Your task to perform on an android device: Open Chrome and go to settings Image 0: 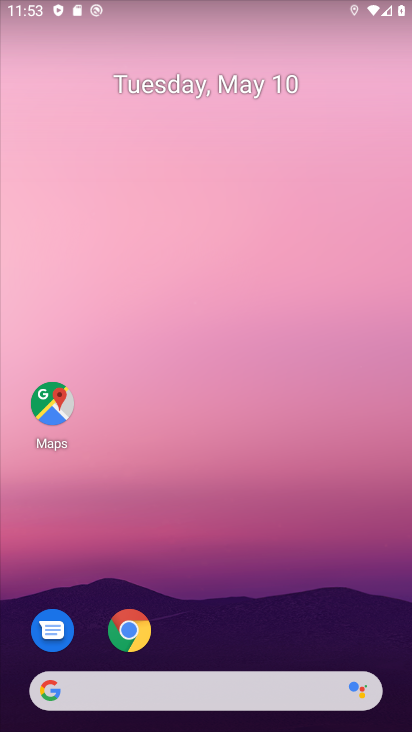
Step 0: click (124, 627)
Your task to perform on an android device: Open Chrome and go to settings Image 1: 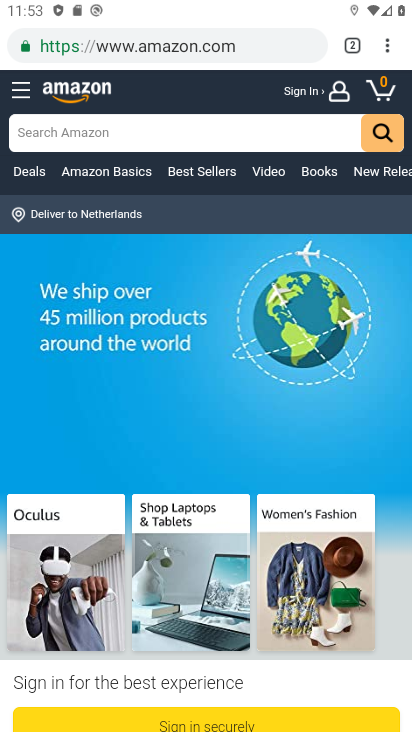
Step 1: click (387, 45)
Your task to perform on an android device: Open Chrome and go to settings Image 2: 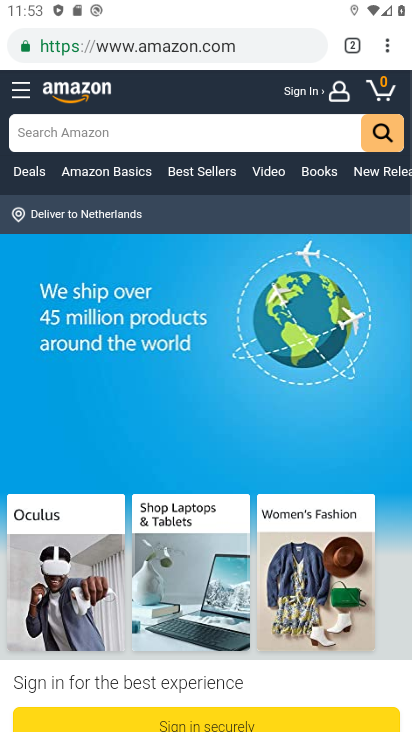
Step 2: task complete